Your task to perform on an android device: turn notification dots off Image 0: 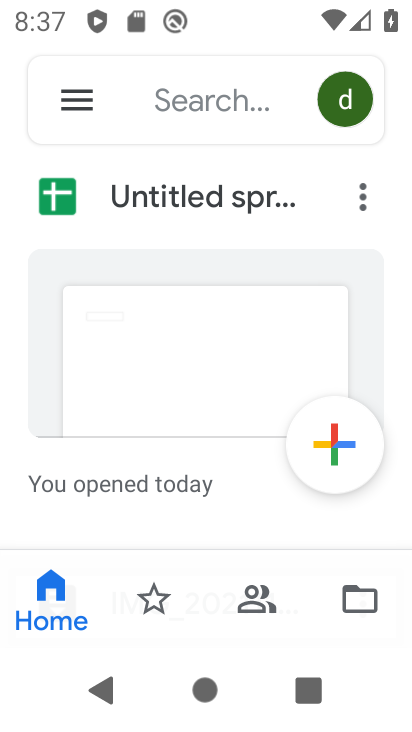
Step 0: press home button
Your task to perform on an android device: turn notification dots off Image 1: 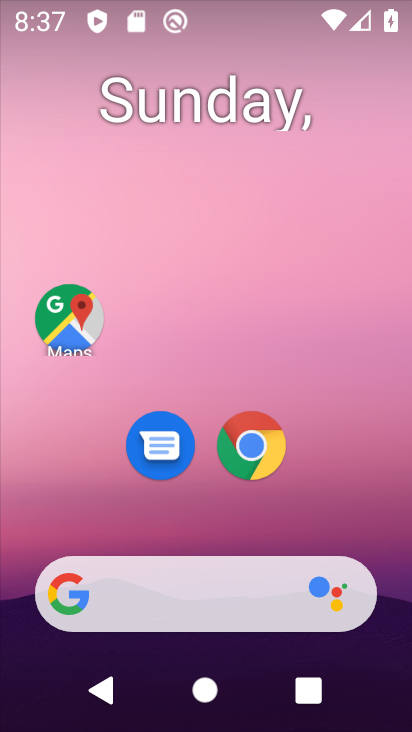
Step 1: drag from (285, 342) to (226, 85)
Your task to perform on an android device: turn notification dots off Image 2: 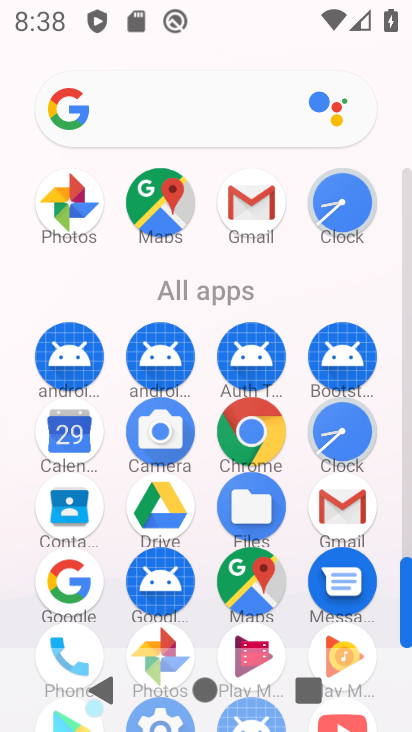
Step 2: drag from (185, 376) to (157, 610)
Your task to perform on an android device: turn notification dots off Image 3: 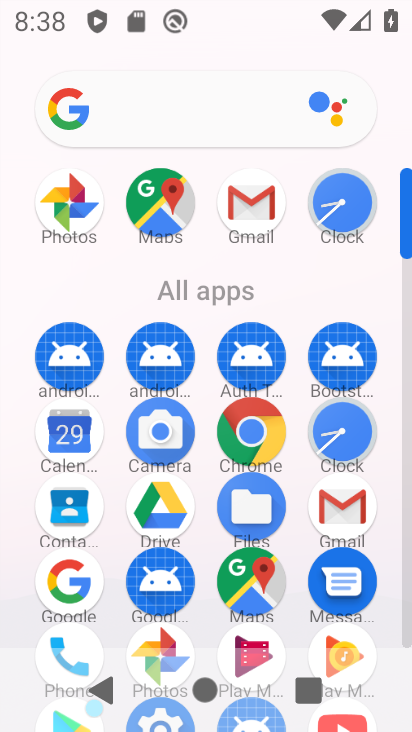
Step 3: drag from (215, 614) to (229, 211)
Your task to perform on an android device: turn notification dots off Image 4: 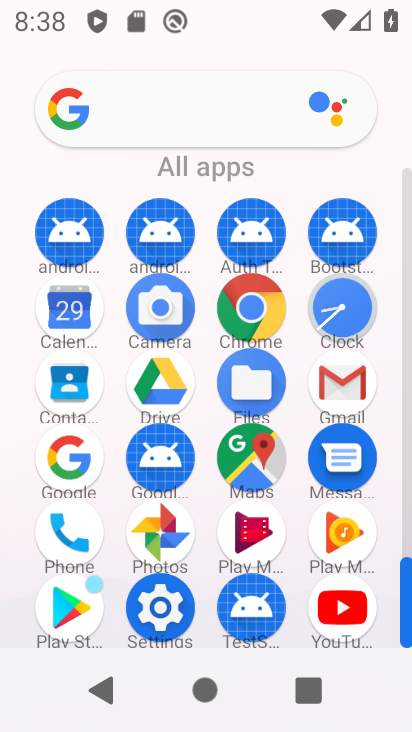
Step 4: click (164, 602)
Your task to perform on an android device: turn notification dots off Image 5: 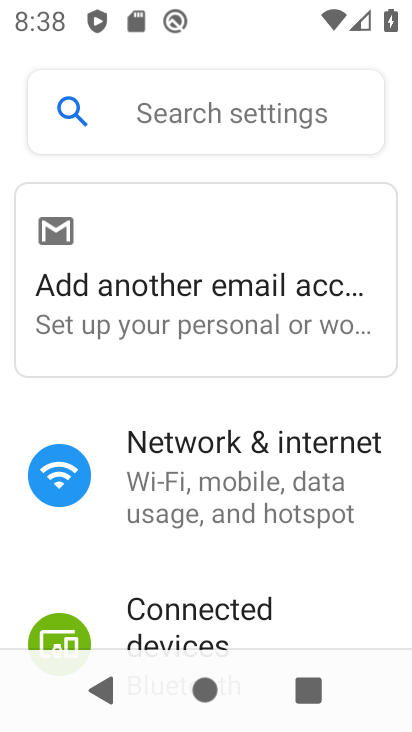
Step 5: click (221, 480)
Your task to perform on an android device: turn notification dots off Image 6: 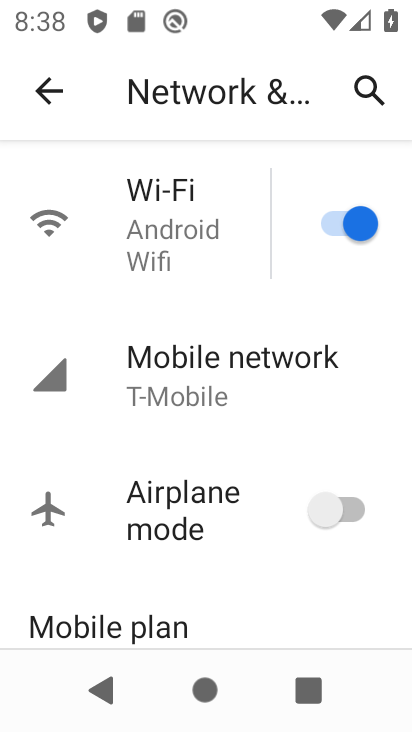
Step 6: drag from (233, 568) to (264, 146)
Your task to perform on an android device: turn notification dots off Image 7: 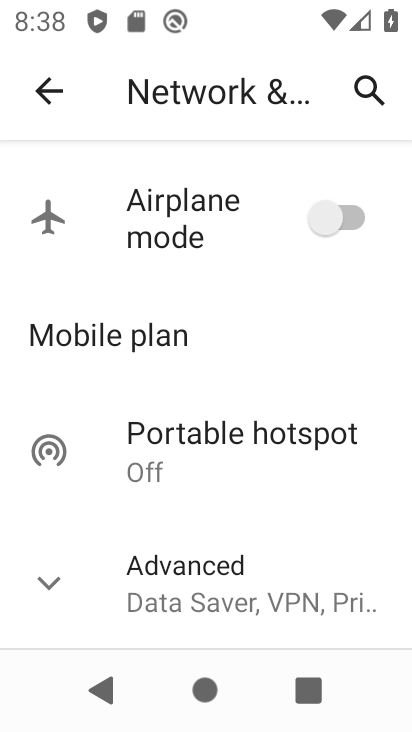
Step 7: click (201, 604)
Your task to perform on an android device: turn notification dots off Image 8: 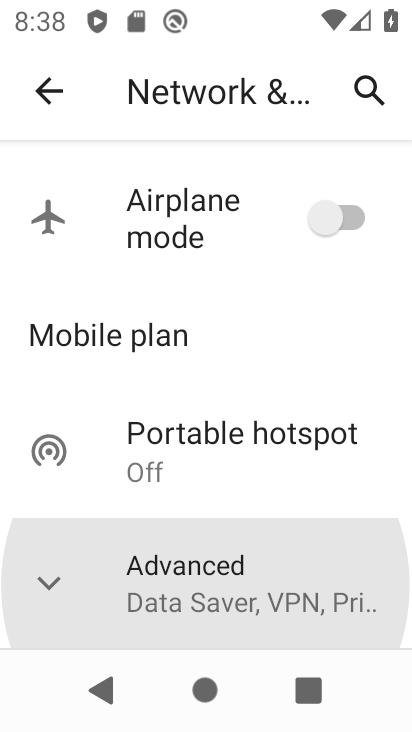
Step 8: click (201, 604)
Your task to perform on an android device: turn notification dots off Image 9: 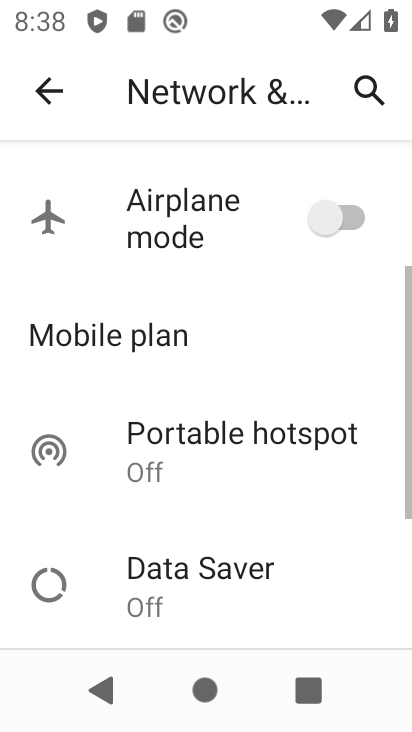
Step 9: drag from (356, 585) to (370, 267)
Your task to perform on an android device: turn notification dots off Image 10: 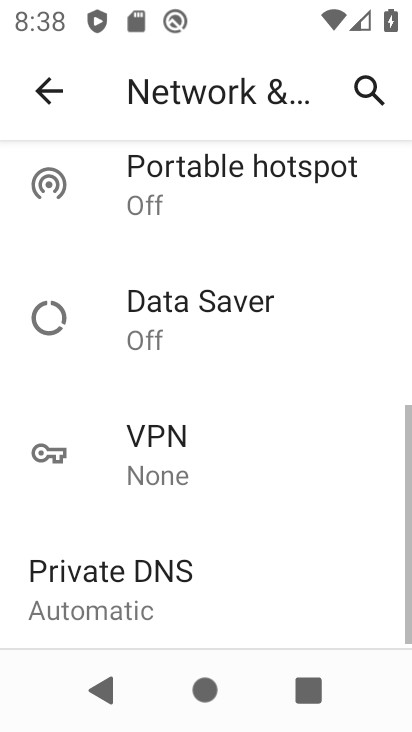
Step 10: click (372, 258)
Your task to perform on an android device: turn notification dots off Image 11: 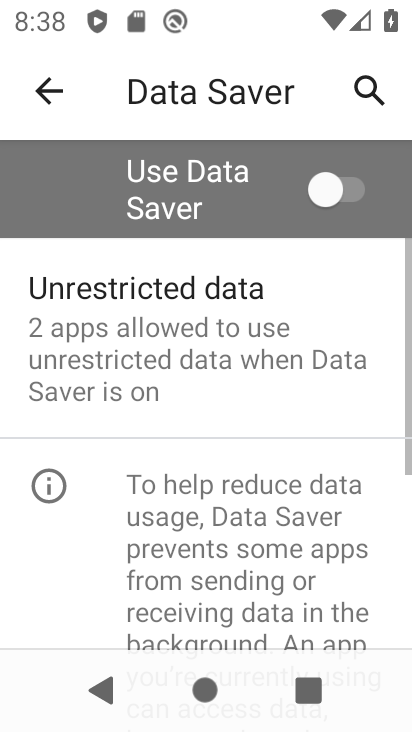
Step 11: click (50, 78)
Your task to perform on an android device: turn notification dots off Image 12: 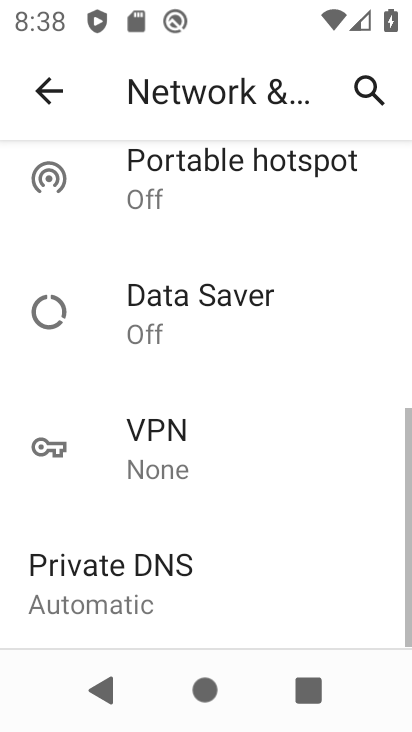
Step 12: drag from (261, 351) to (275, 115)
Your task to perform on an android device: turn notification dots off Image 13: 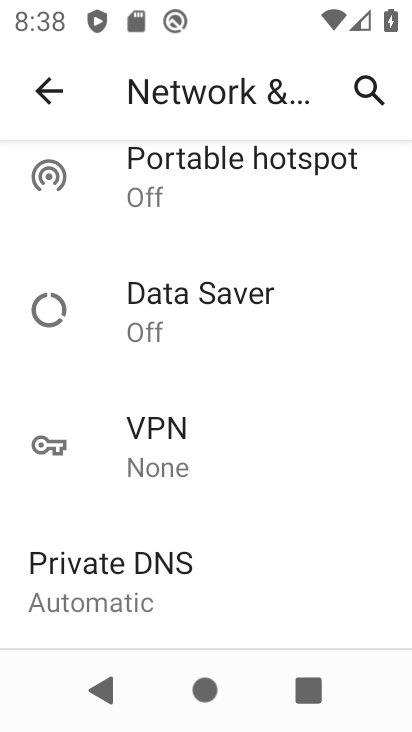
Step 13: drag from (295, 392) to (341, 644)
Your task to perform on an android device: turn notification dots off Image 14: 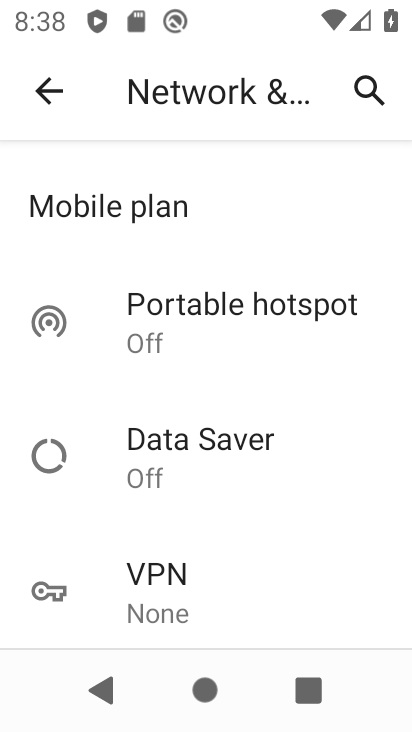
Step 14: drag from (320, 246) to (331, 645)
Your task to perform on an android device: turn notification dots off Image 15: 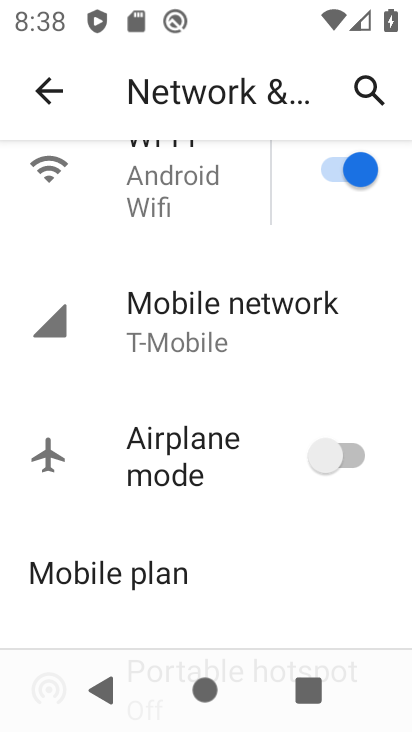
Step 15: click (59, 90)
Your task to perform on an android device: turn notification dots off Image 16: 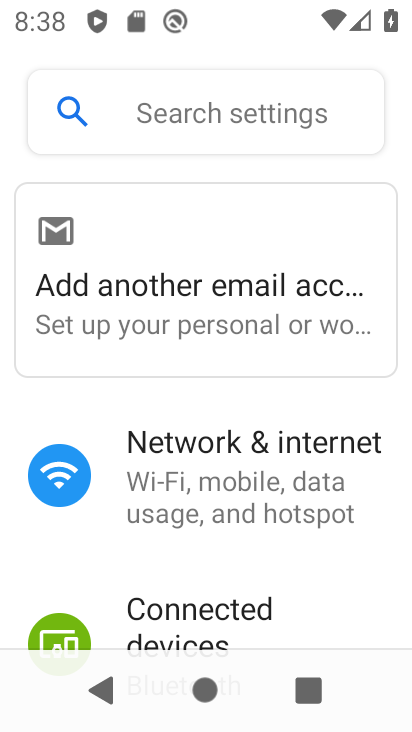
Step 16: drag from (238, 572) to (265, 113)
Your task to perform on an android device: turn notification dots off Image 17: 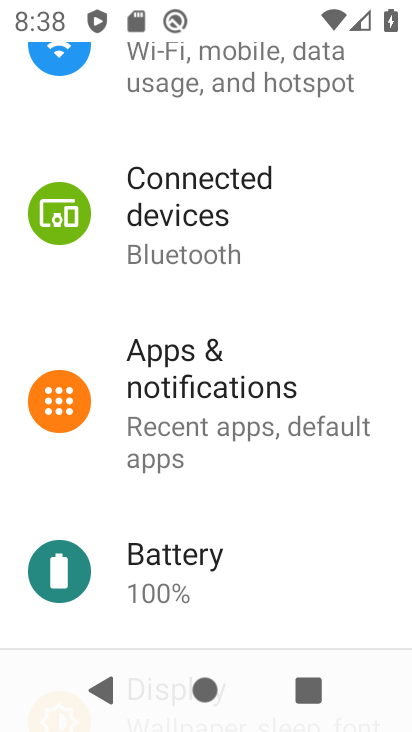
Step 17: click (216, 420)
Your task to perform on an android device: turn notification dots off Image 18: 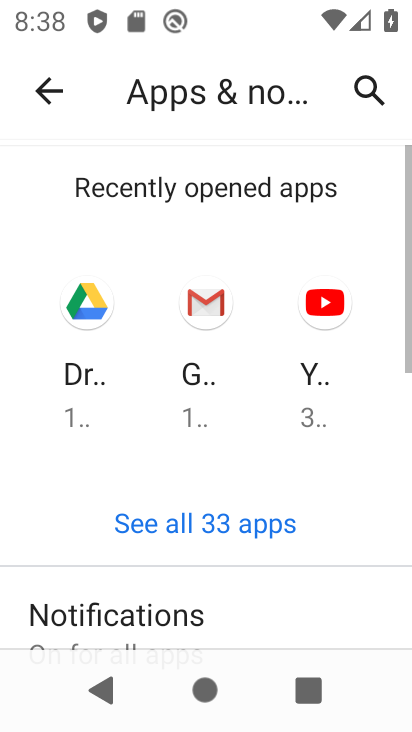
Step 18: drag from (238, 618) to (294, 143)
Your task to perform on an android device: turn notification dots off Image 19: 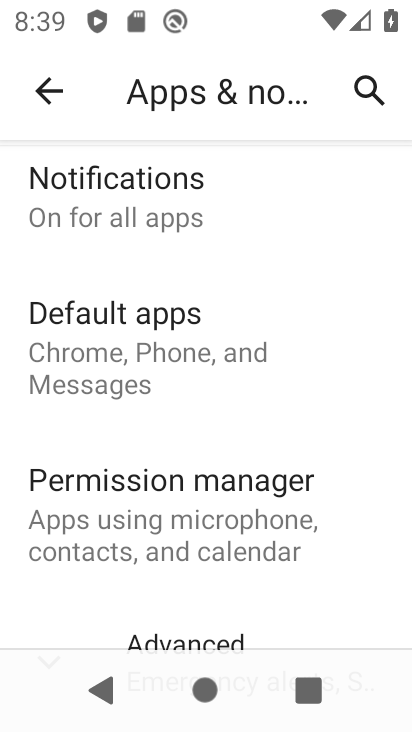
Step 19: click (171, 204)
Your task to perform on an android device: turn notification dots off Image 20: 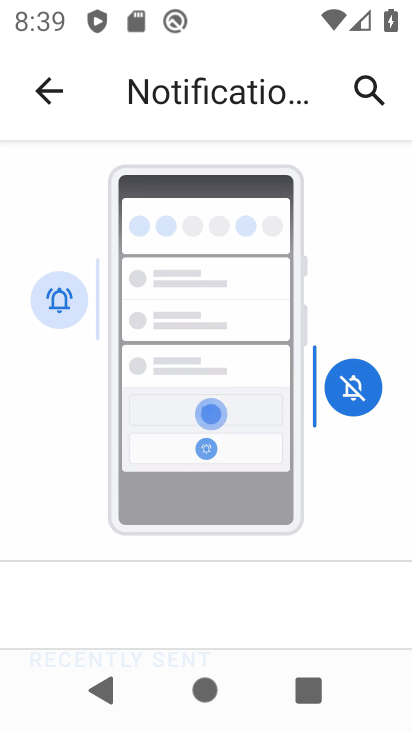
Step 20: drag from (259, 611) to (349, 98)
Your task to perform on an android device: turn notification dots off Image 21: 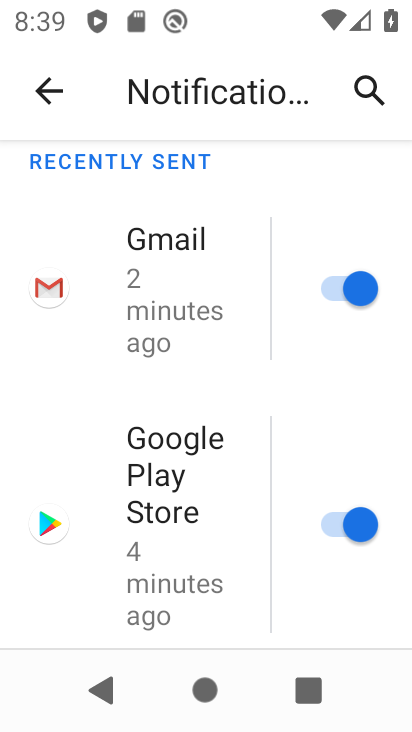
Step 21: drag from (228, 498) to (387, 81)
Your task to perform on an android device: turn notification dots off Image 22: 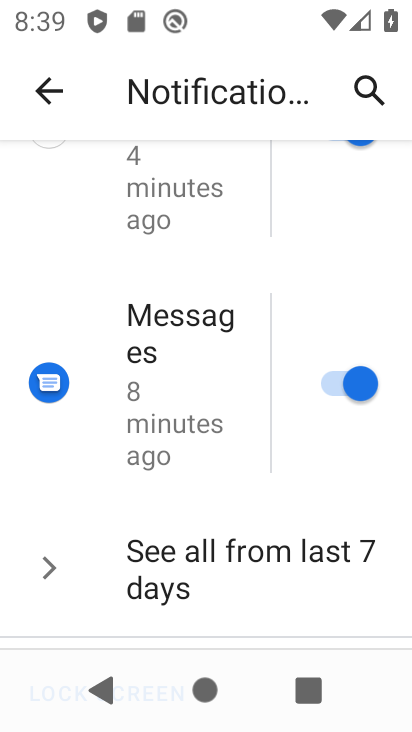
Step 22: drag from (209, 551) to (315, 123)
Your task to perform on an android device: turn notification dots off Image 23: 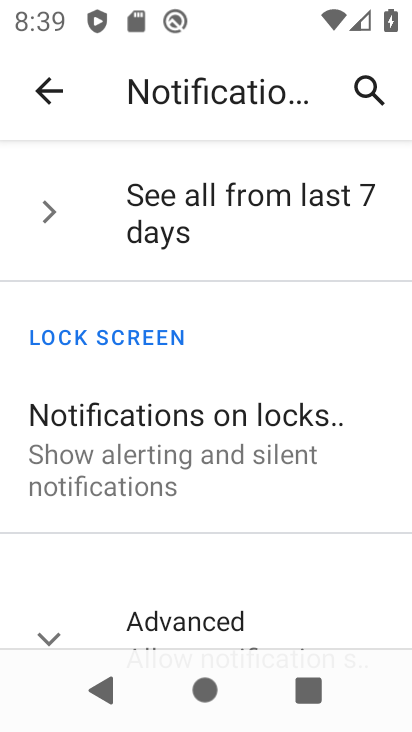
Step 23: drag from (263, 559) to (363, 93)
Your task to perform on an android device: turn notification dots off Image 24: 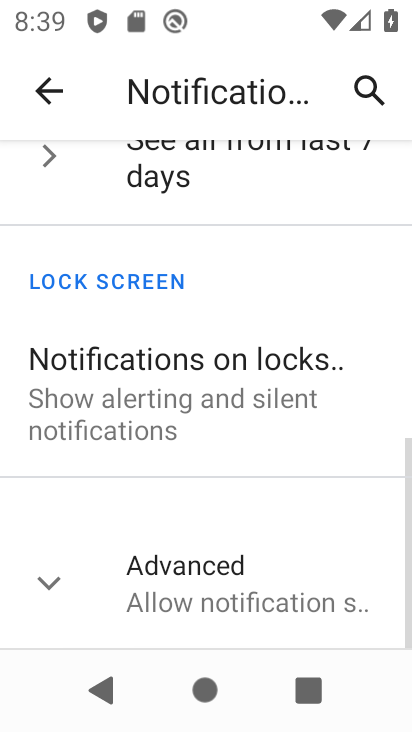
Step 24: click (213, 567)
Your task to perform on an android device: turn notification dots off Image 25: 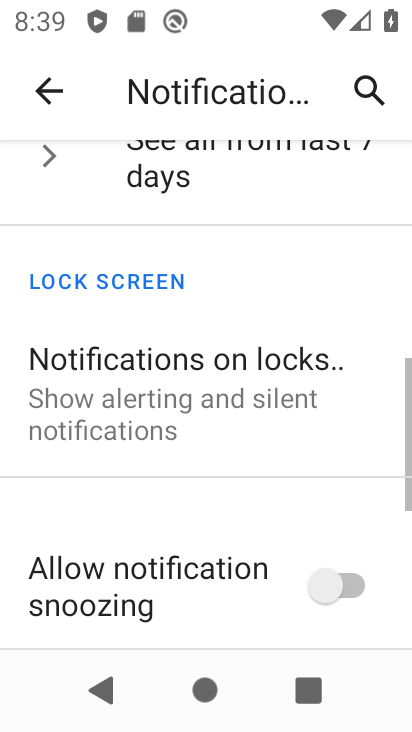
Step 25: drag from (276, 495) to (328, 110)
Your task to perform on an android device: turn notification dots off Image 26: 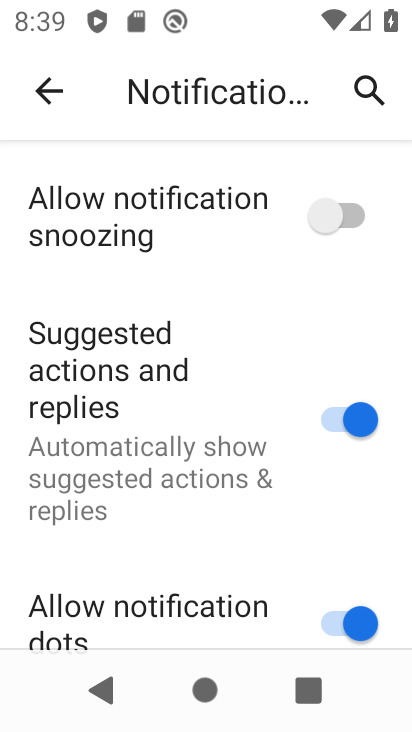
Step 26: drag from (229, 597) to (286, 315)
Your task to perform on an android device: turn notification dots off Image 27: 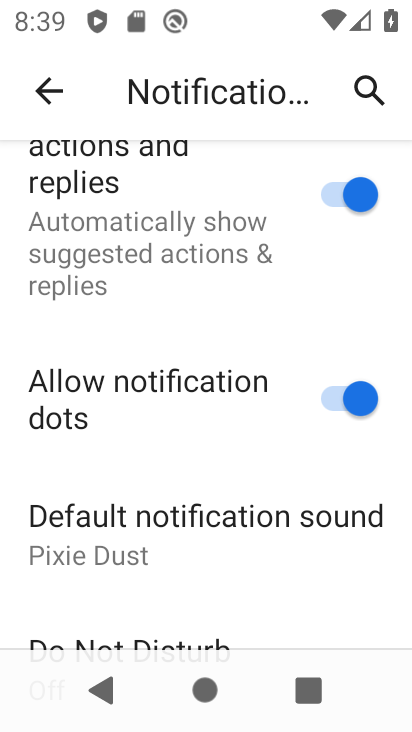
Step 27: click (357, 406)
Your task to perform on an android device: turn notification dots off Image 28: 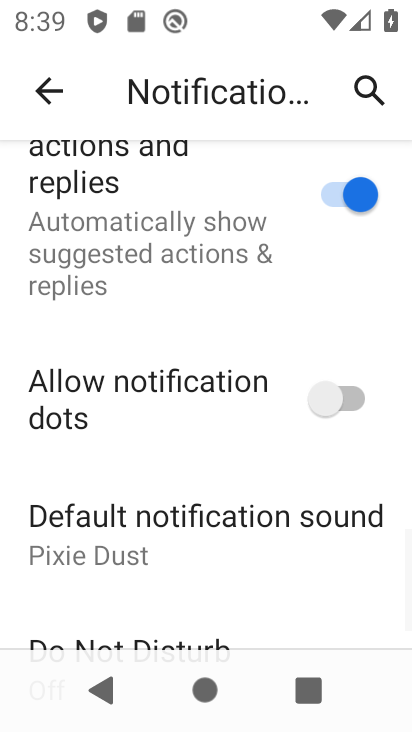
Step 28: task complete